Your task to perform on an android device: clear history in the chrome app Image 0: 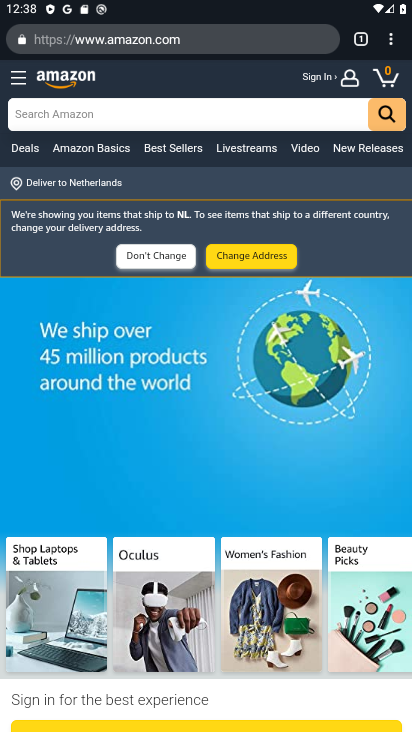
Step 0: click (392, 39)
Your task to perform on an android device: clear history in the chrome app Image 1: 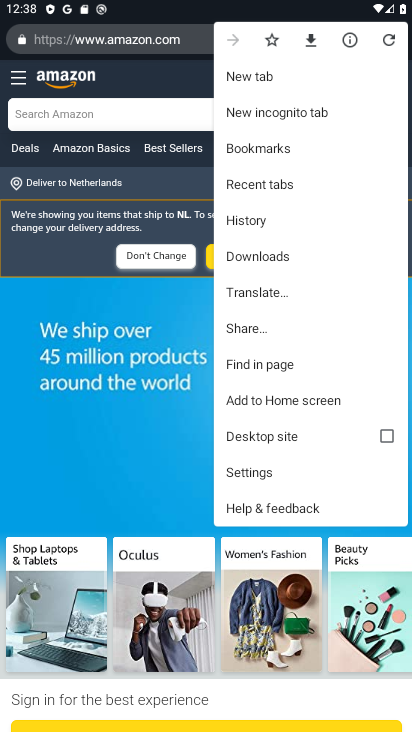
Step 1: click (270, 222)
Your task to perform on an android device: clear history in the chrome app Image 2: 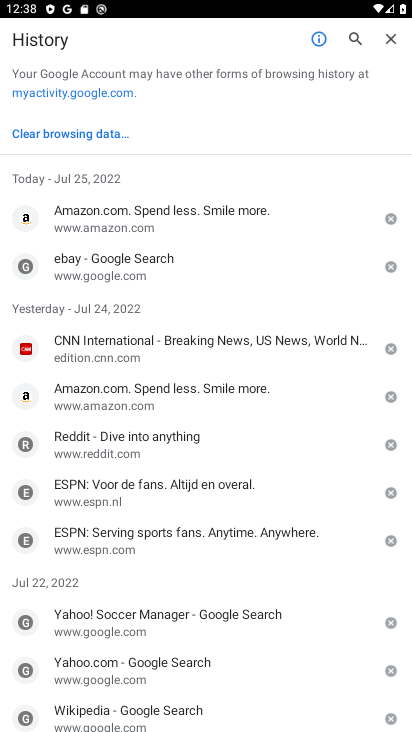
Step 2: click (25, 137)
Your task to perform on an android device: clear history in the chrome app Image 3: 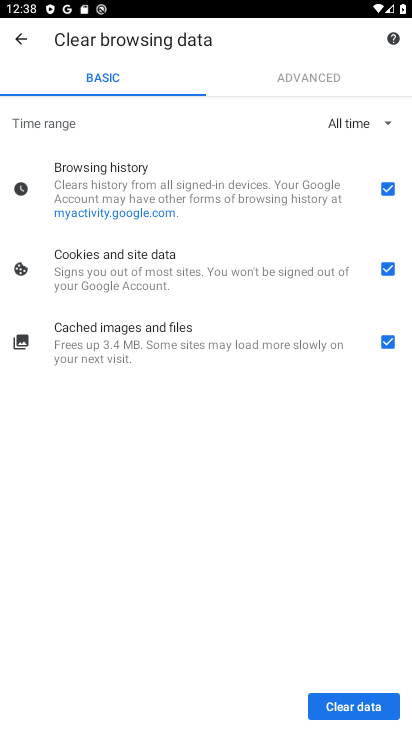
Step 3: click (333, 701)
Your task to perform on an android device: clear history in the chrome app Image 4: 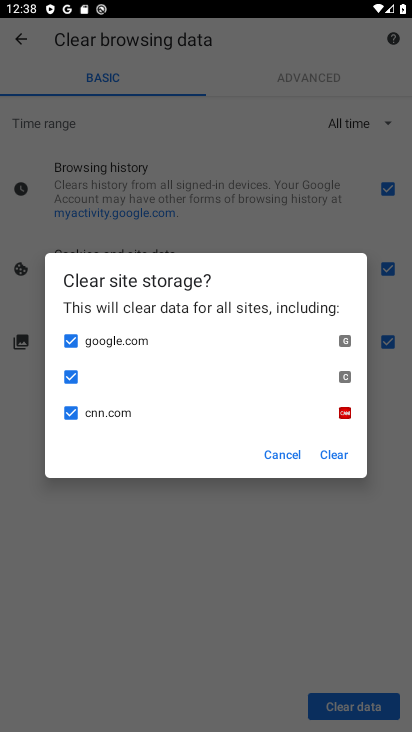
Step 4: click (340, 451)
Your task to perform on an android device: clear history in the chrome app Image 5: 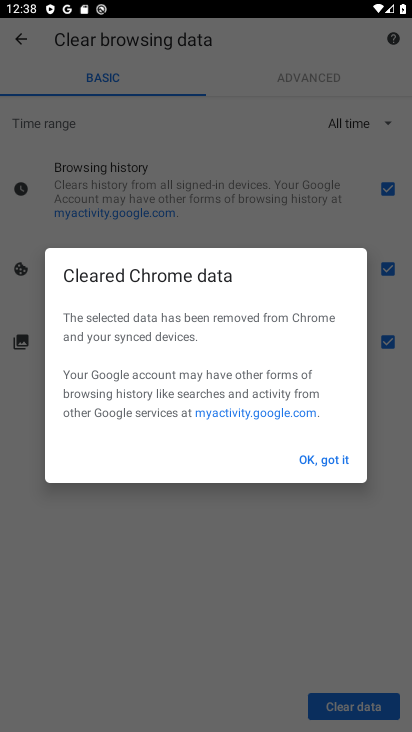
Step 5: click (330, 454)
Your task to perform on an android device: clear history in the chrome app Image 6: 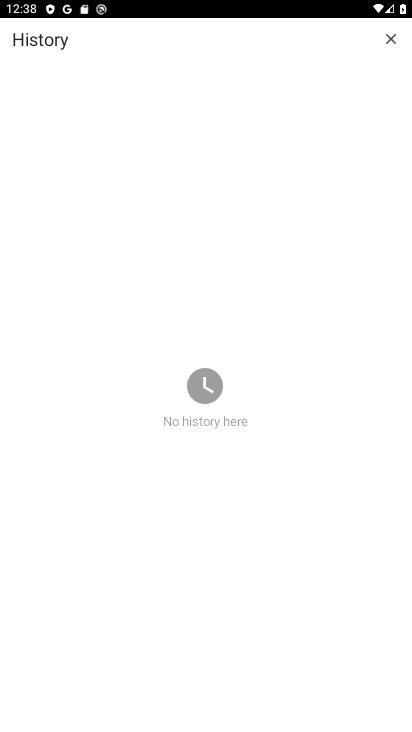
Step 6: task complete